Your task to perform on an android device: What's the weather going to be this weekend? Image 0: 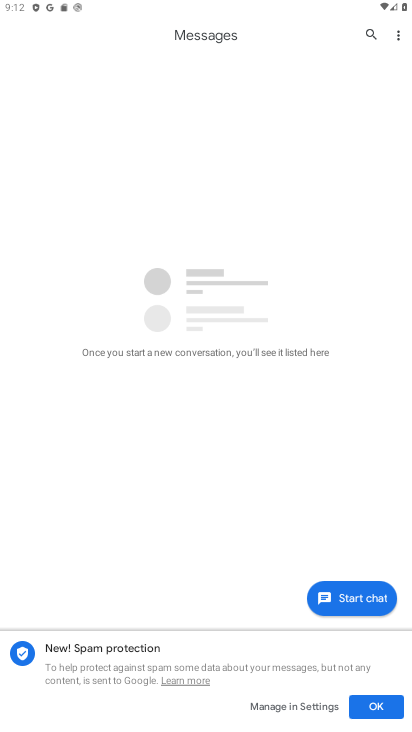
Step 0: press home button
Your task to perform on an android device: What's the weather going to be this weekend? Image 1: 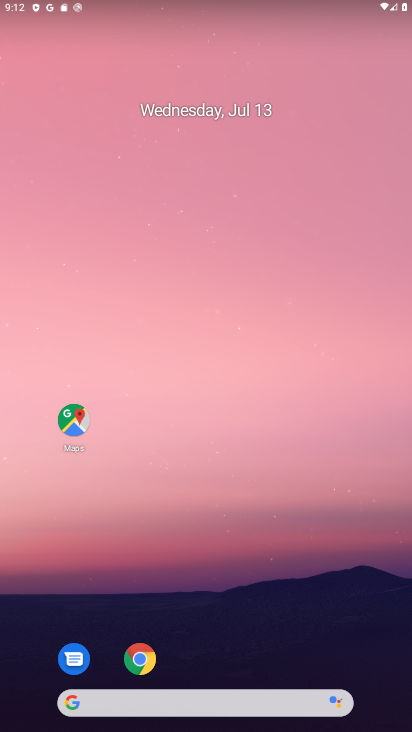
Step 1: drag from (229, 650) to (273, 172)
Your task to perform on an android device: What's the weather going to be this weekend? Image 2: 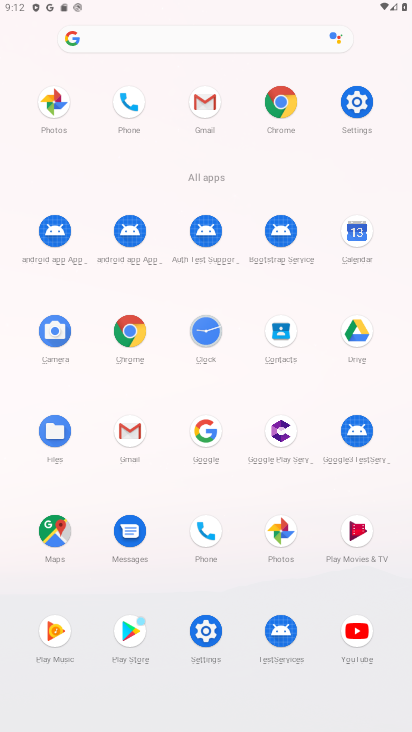
Step 2: click (268, 95)
Your task to perform on an android device: What's the weather going to be this weekend? Image 3: 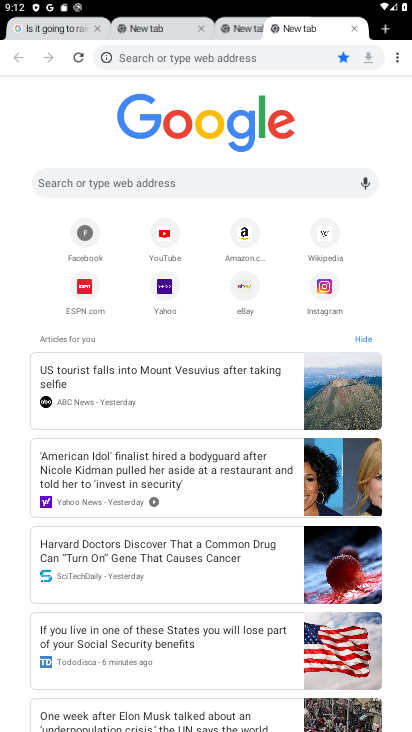
Step 3: click (167, 173)
Your task to perform on an android device: What's the weather going to be this weekend? Image 4: 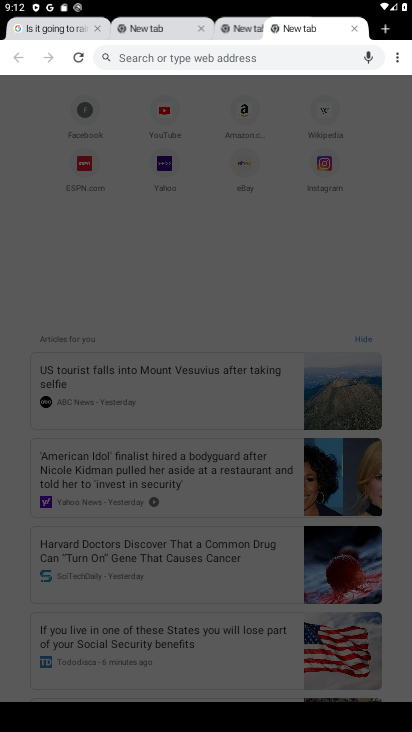
Step 4: type "What's the weather going to be this weekend "
Your task to perform on an android device: What's the weather going to be this weekend? Image 5: 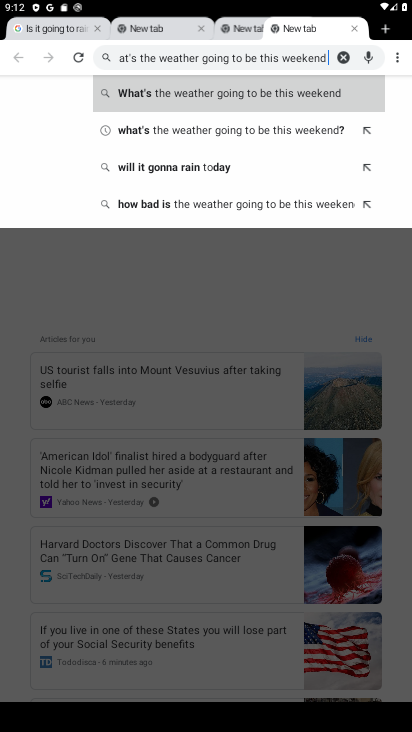
Step 5: click (234, 85)
Your task to perform on an android device: What's the weather going to be this weekend? Image 6: 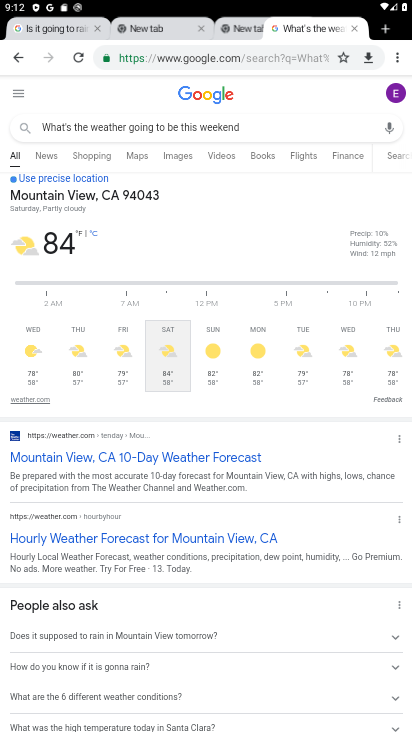
Step 6: task complete